Your task to perform on an android device: Play the last video I watched on Youtube Image 0: 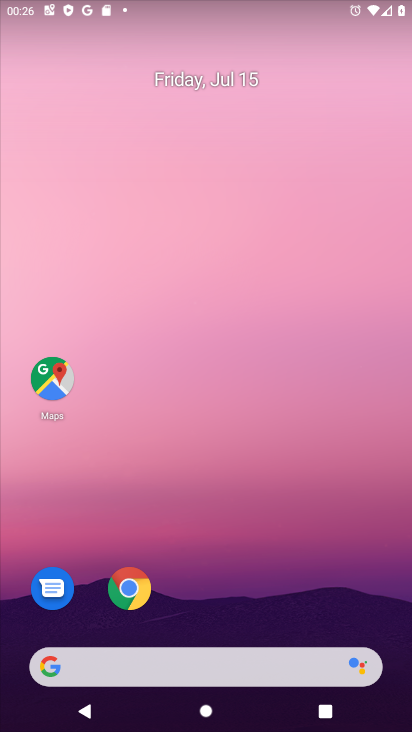
Step 0: press home button
Your task to perform on an android device: Play the last video I watched on Youtube Image 1: 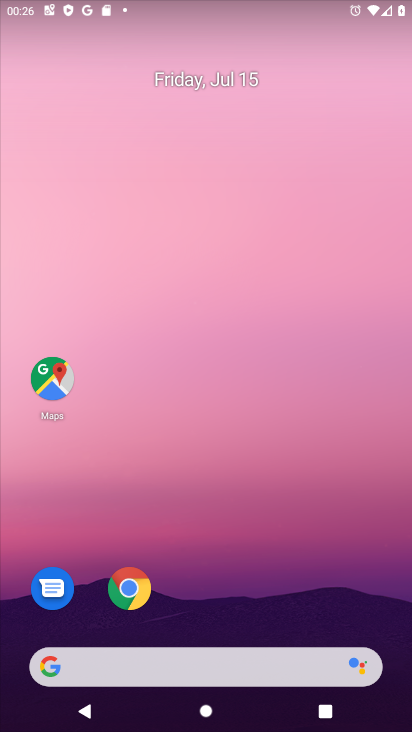
Step 1: drag from (193, 667) to (328, 140)
Your task to perform on an android device: Play the last video I watched on Youtube Image 2: 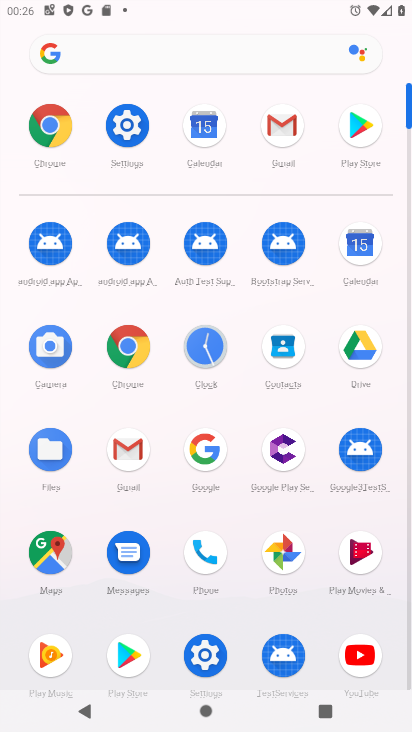
Step 2: click (361, 655)
Your task to perform on an android device: Play the last video I watched on Youtube Image 3: 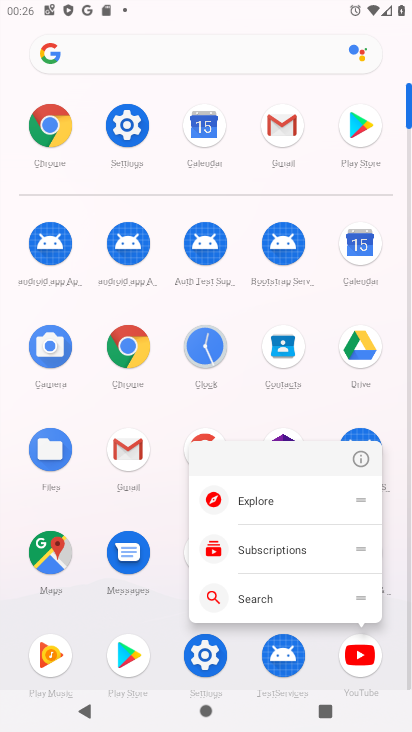
Step 3: click (361, 655)
Your task to perform on an android device: Play the last video I watched on Youtube Image 4: 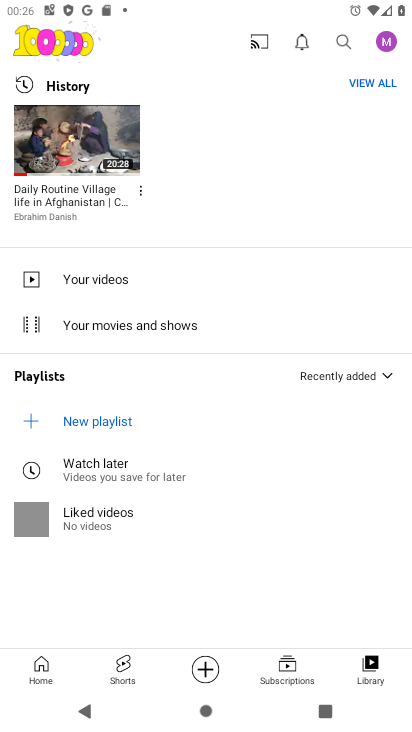
Step 4: click (92, 135)
Your task to perform on an android device: Play the last video I watched on Youtube Image 5: 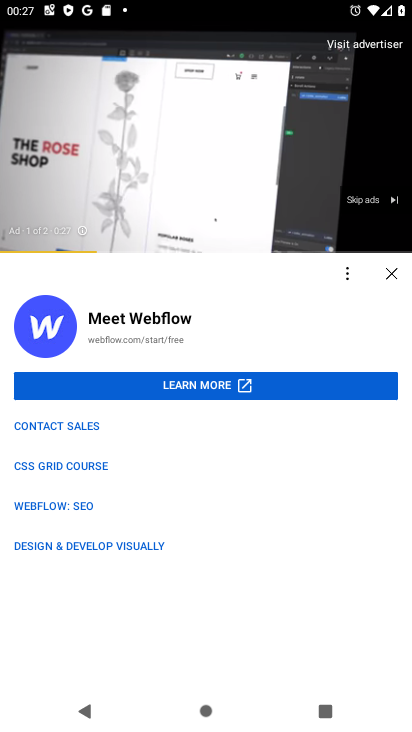
Step 5: click (368, 195)
Your task to perform on an android device: Play the last video I watched on Youtube Image 6: 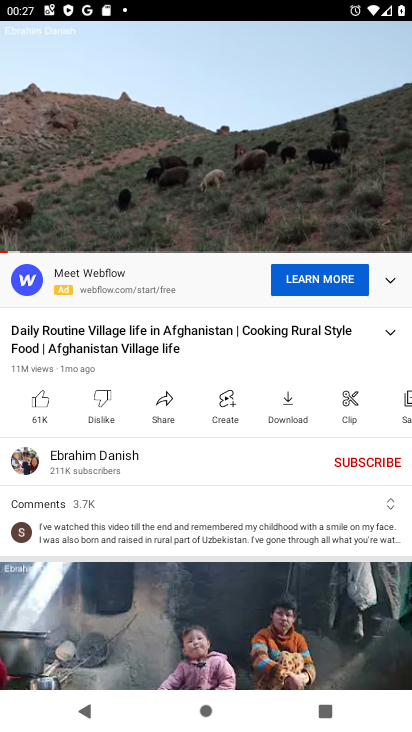
Step 6: click (254, 114)
Your task to perform on an android device: Play the last video I watched on Youtube Image 7: 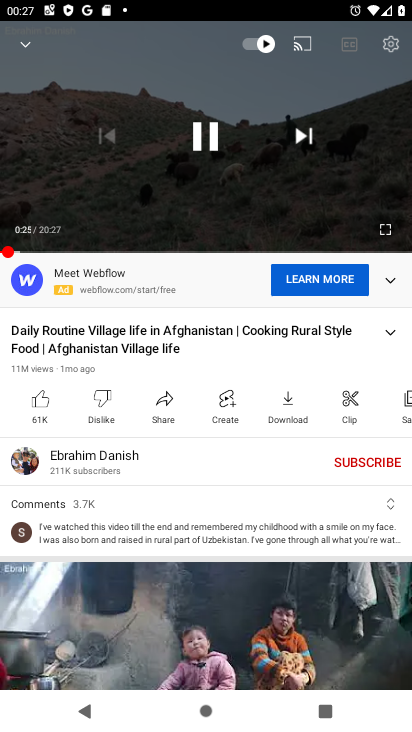
Step 7: click (212, 139)
Your task to perform on an android device: Play the last video I watched on Youtube Image 8: 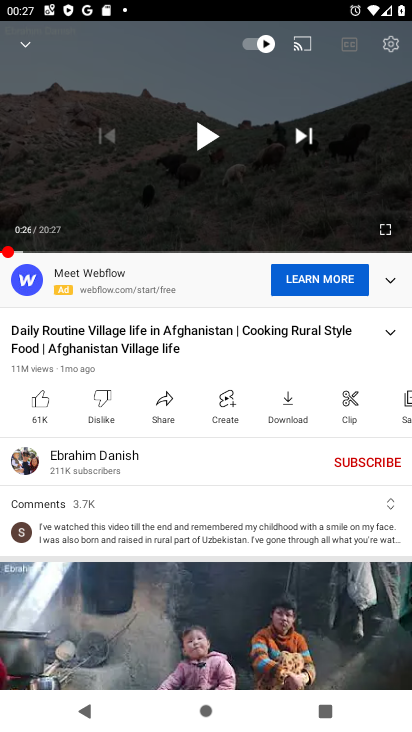
Step 8: task complete